Your task to perform on an android device: Open Chrome and go to settings Image 0: 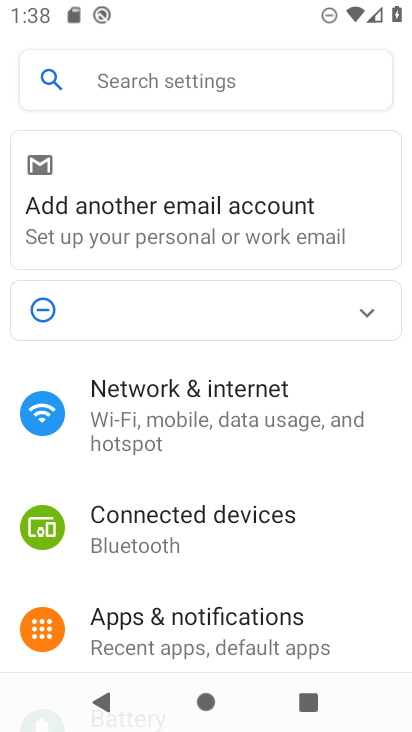
Step 0: press home button
Your task to perform on an android device: Open Chrome and go to settings Image 1: 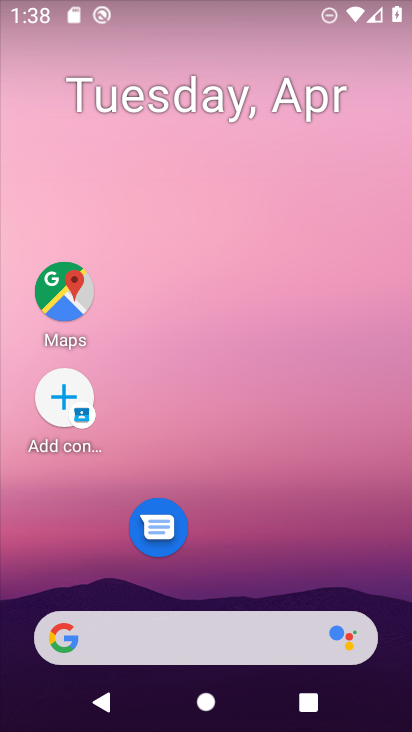
Step 1: drag from (277, 537) to (321, 91)
Your task to perform on an android device: Open Chrome and go to settings Image 2: 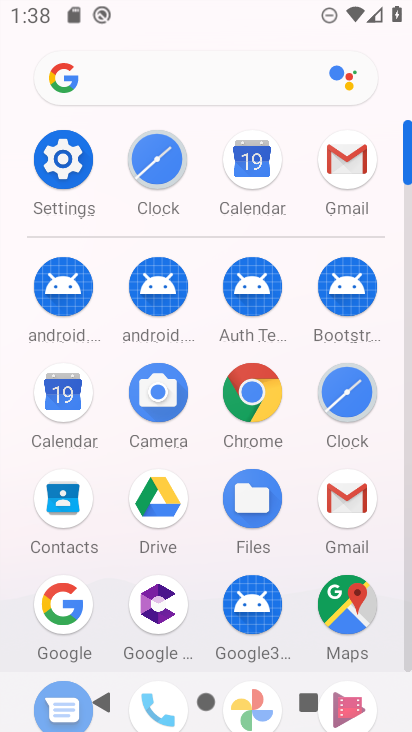
Step 2: click (257, 394)
Your task to perform on an android device: Open Chrome and go to settings Image 3: 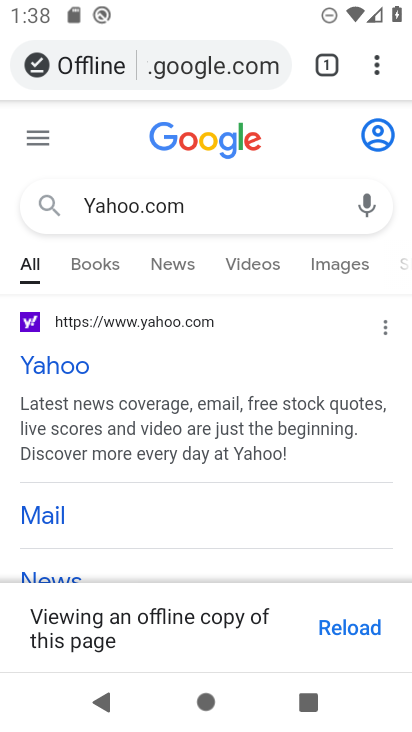
Step 3: click (377, 65)
Your task to perform on an android device: Open Chrome and go to settings Image 4: 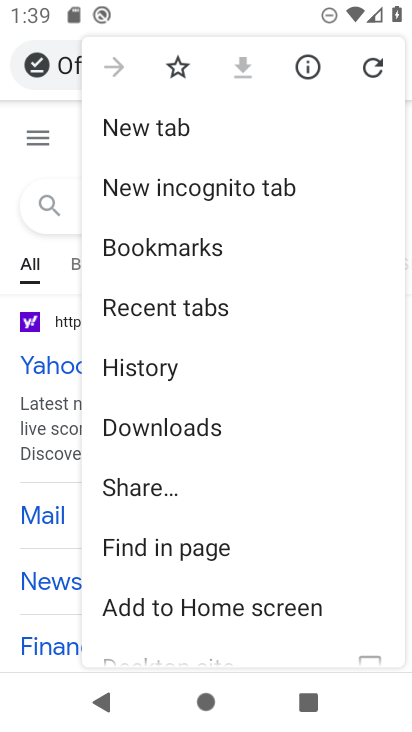
Step 4: drag from (223, 439) to (238, 332)
Your task to perform on an android device: Open Chrome and go to settings Image 5: 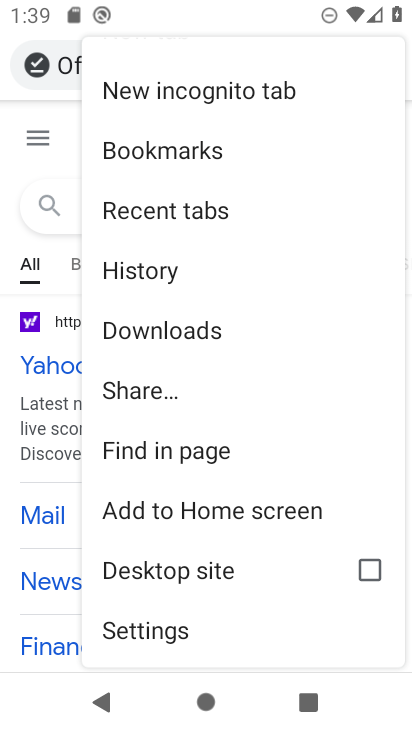
Step 5: drag from (208, 535) to (244, 413)
Your task to perform on an android device: Open Chrome and go to settings Image 6: 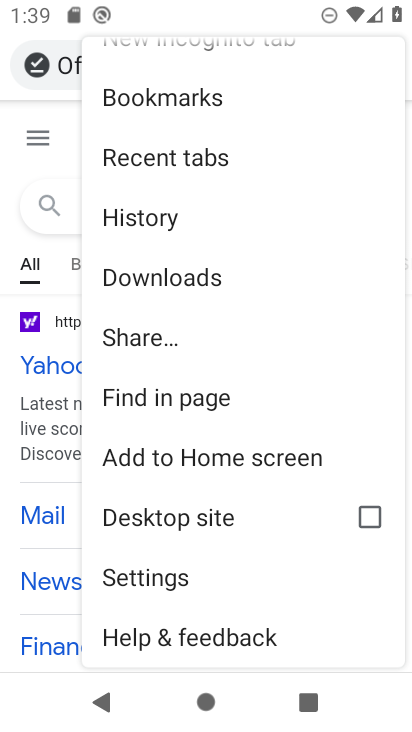
Step 6: click (147, 577)
Your task to perform on an android device: Open Chrome and go to settings Image 7: 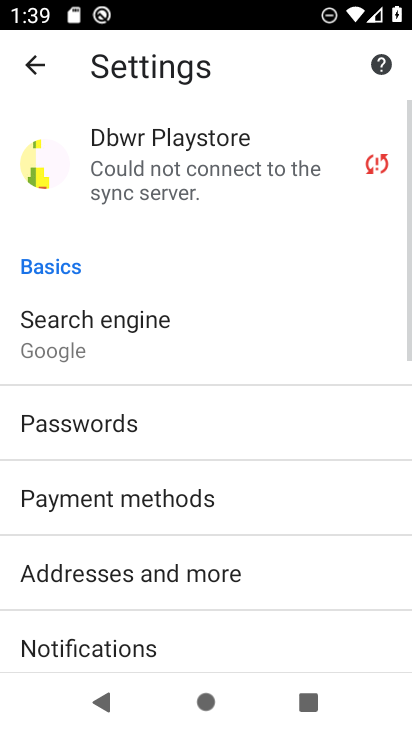
Step 7: task complete